Your task to perform on an android device: Go to accessibility settings Image 0: 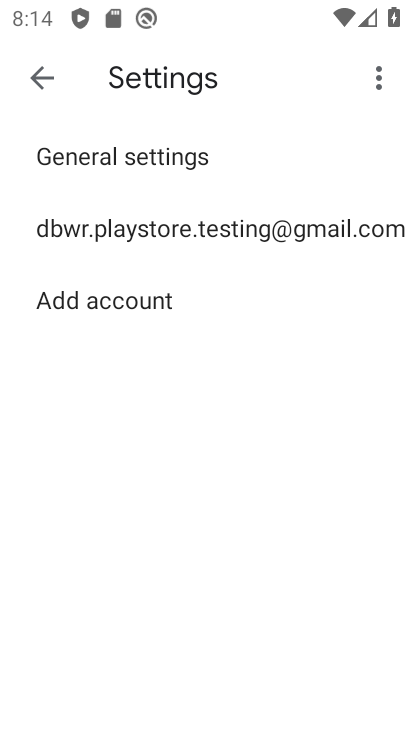
Step 0: press home button
Your task to perform on an android device: Go to accessibility settings Image 1: 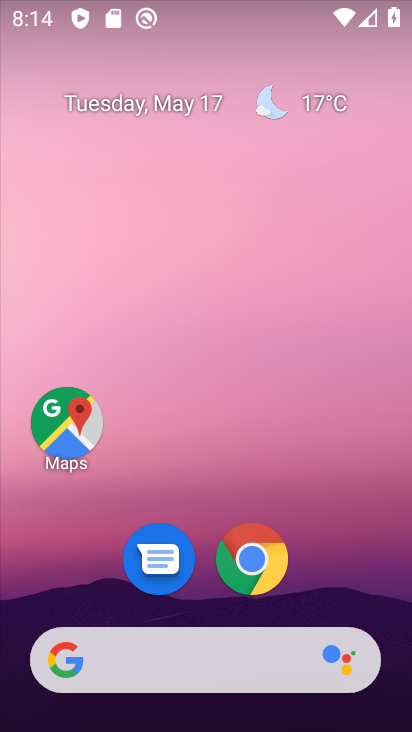
Step 1: drag from (222, 641) to (203, 158)
Your task to perform on an android device: Go to accessibility settings Image 2: 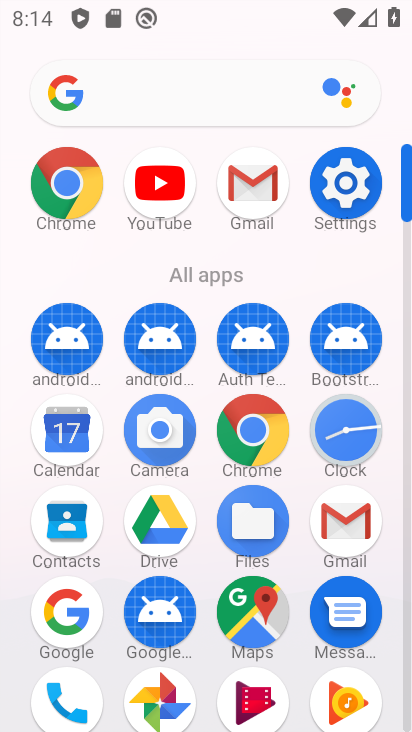
Step 2: click (345, 176)
Your task to perform on an android device: Go to accessibility settings Image 3: 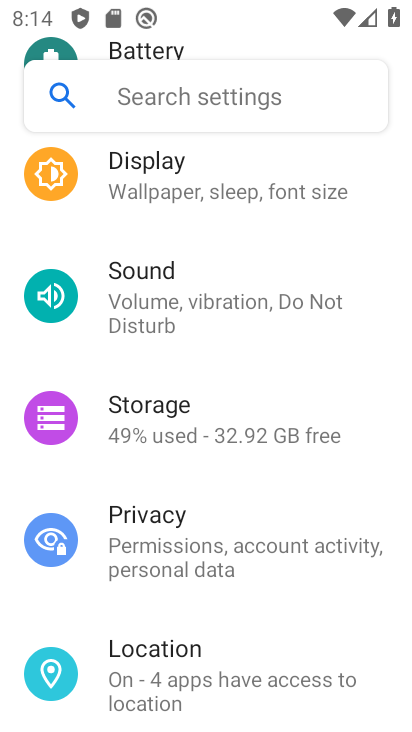
Step 3: drag from (195, 557) to (174, 17)
Your task to perform on an android device: Go to accessibility settings Image 4: 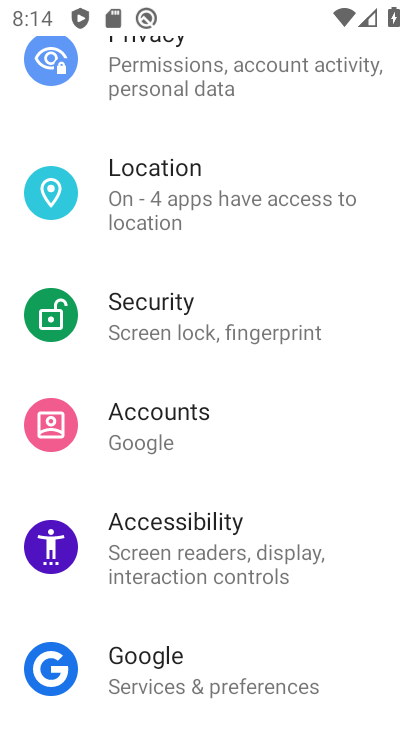
Step 4: click (196, 530)
Your task to perform on an android device: Go to accessibility settings Image 5: 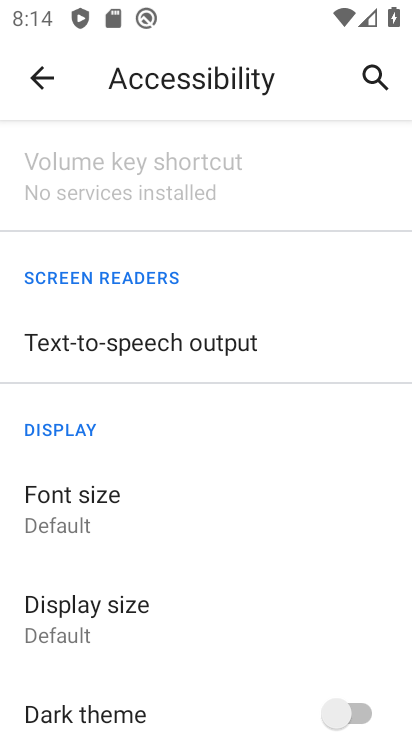
Step 5: task complete